Your task to perform on an android device: Open display settings Image 0: 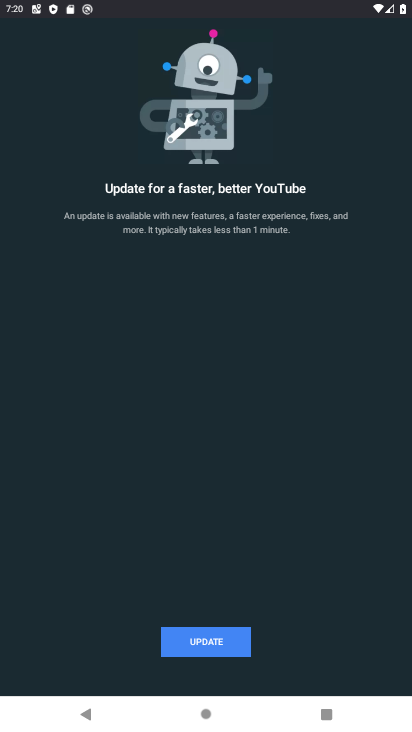
Step 0: press back button
Your task to perform on an android device: Open display settings Image 1: 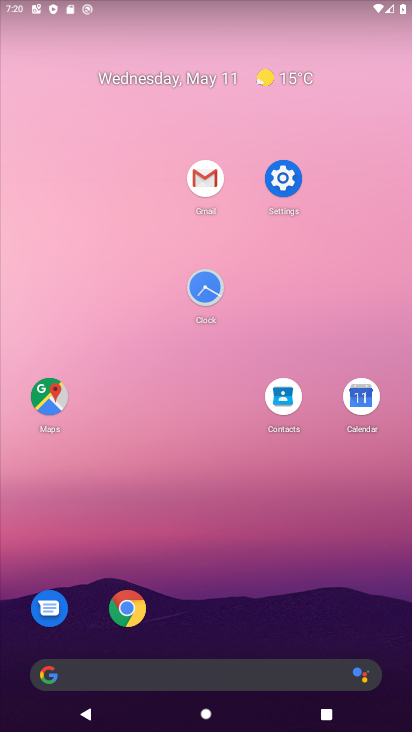
Step 1: click (279, 187)
Your task to perform on an android device: Open display settings Image 2: 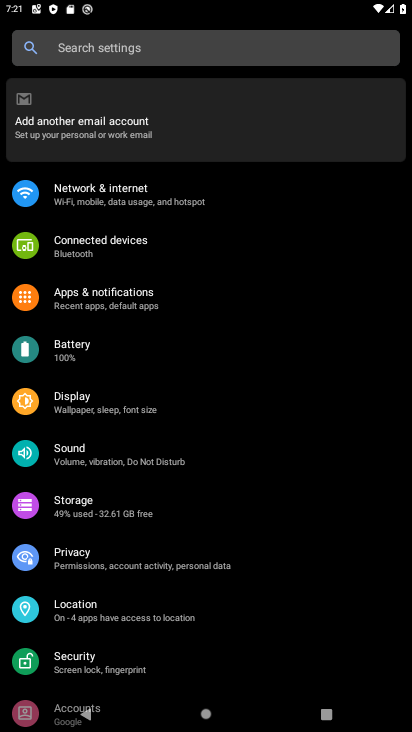
Step 2: click (138, 412)
Your task to perform on an android device: Open display settings Image 3: 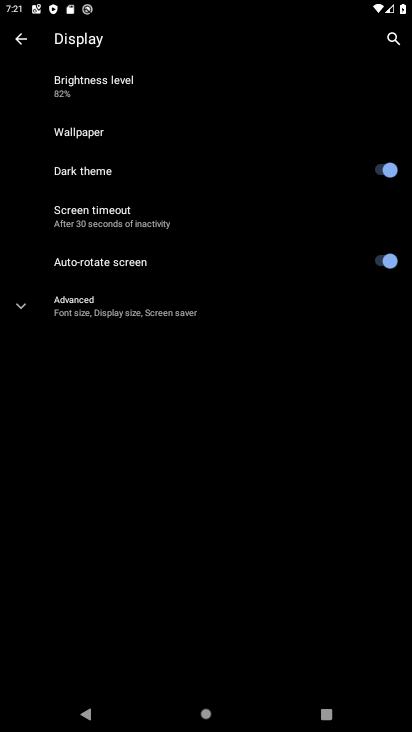
Step 3: task complete